Your task to perform on an android device: turn off location Image 0: 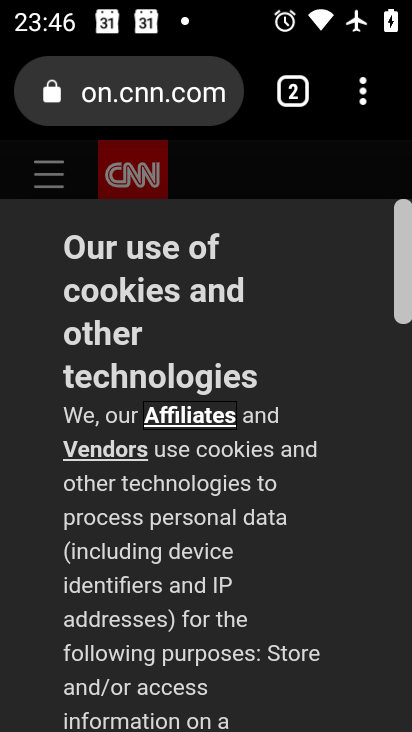
Step 0: click (376, 91)
Your task to perform on an android device: turn off location Image 1: 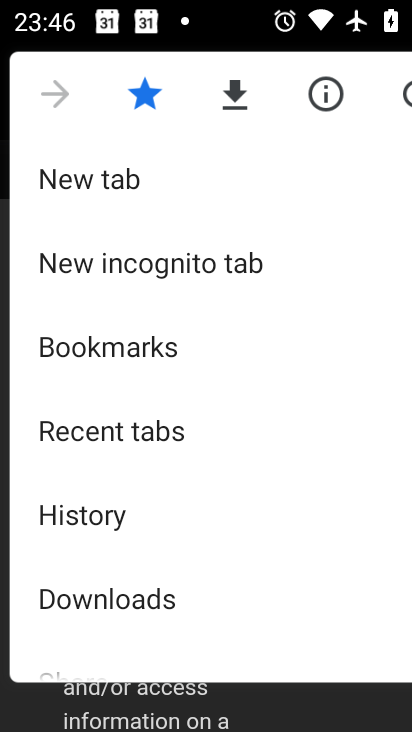
Step 1: drag from (204, 555) to (222, 318)
Your task to perform on an android device: turn off location Image 2: 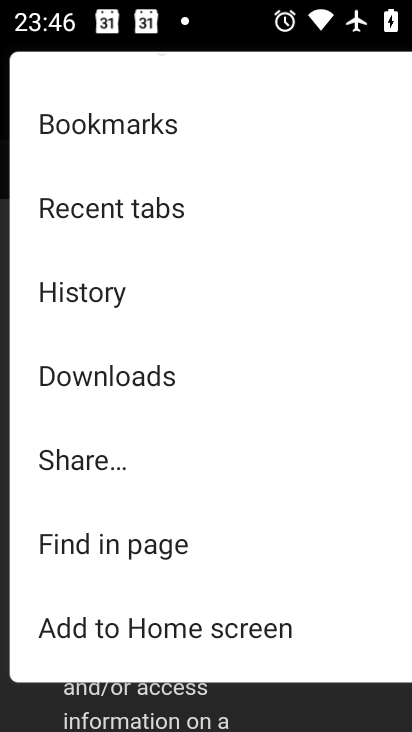
Step 2: drag from (171, 566) to (144, 318)
Your task to perform on an android device: turn off location Image 3: 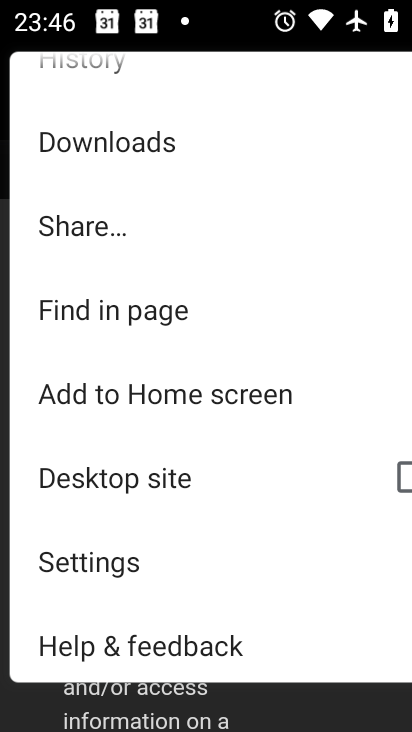
Step 3: drag from (128, 567) to (158, 341)
Your task to perform on an android device: turn off location Image 4: 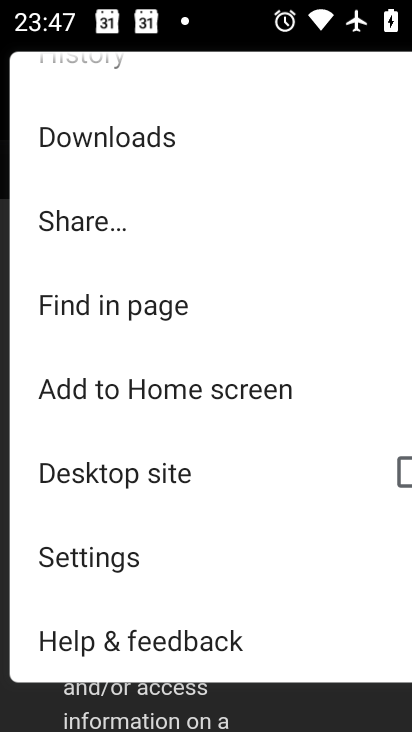
Step 4: click (142, 552)
Your task to perform on an android device: turn off location Image 5: 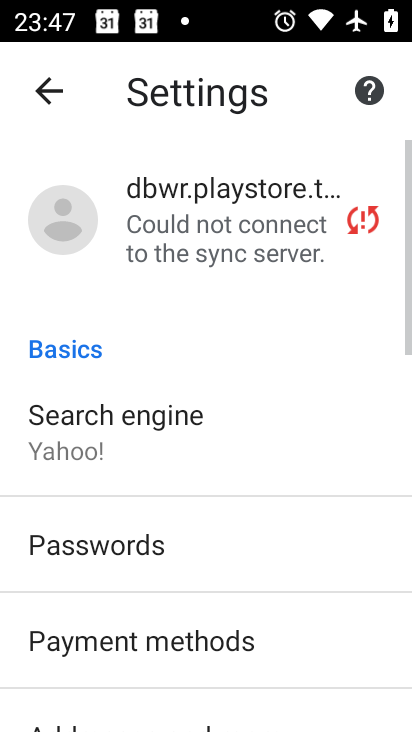
Step 5: drag from (147, 561) to (176, 286)
Your task to perform on an android device: turn off location Image 6: 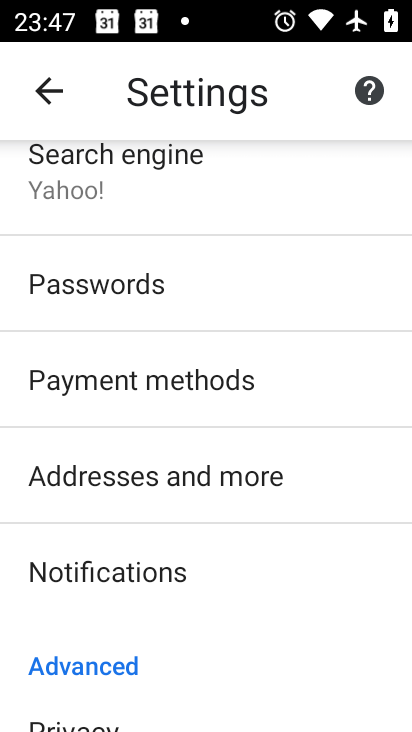
Step 6: drag from (173, 585) to (178, 316)
Your task to perform on an android device: turn off location Image 7: 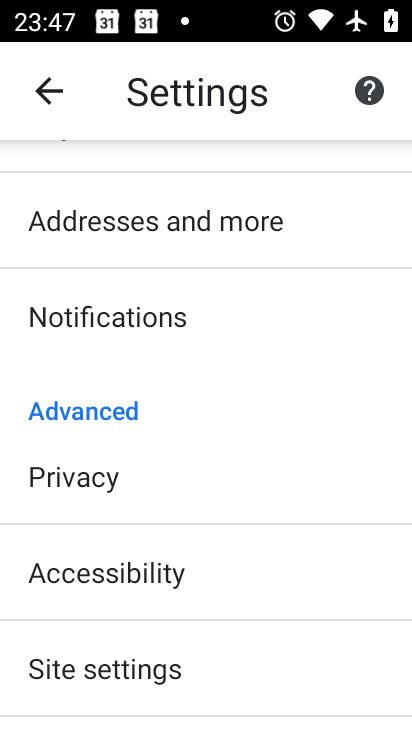
Step 7: drag from (177, 547) to (181, 306)
Your task to perform on an android device: turn off location Image 8: 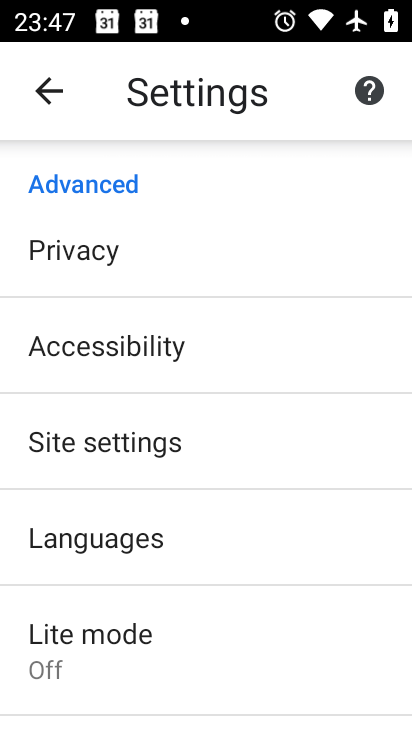
Step 8: drag from (140, 600) to (154, 416)
Your task to perform on an android device: turn off location Image 9: 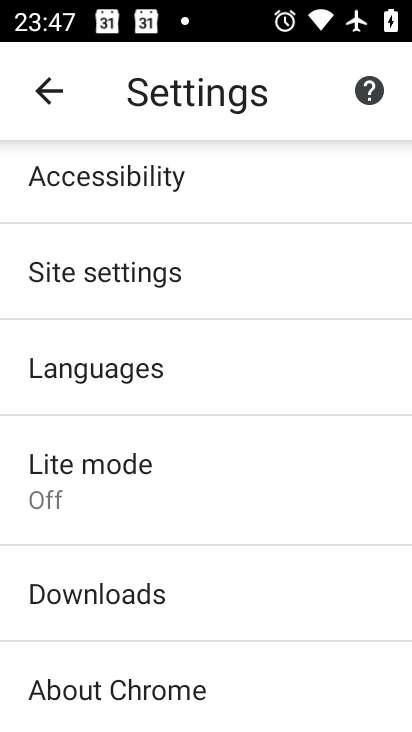
Step 9: drag from (148, 609) to (159, 386)
Your task to perform on an android device: turn off location Image 10: 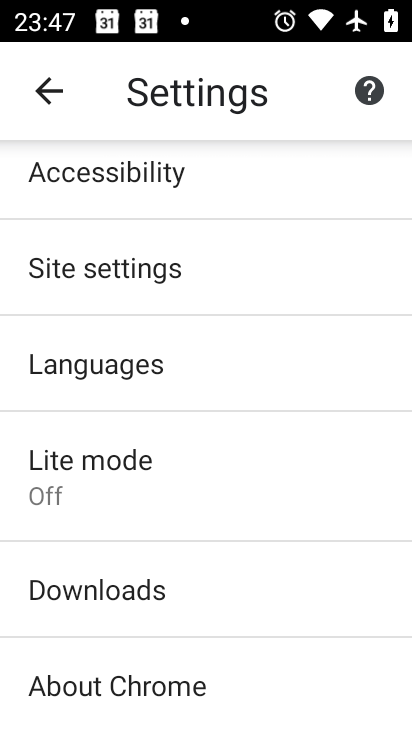
Step 10: drag from (206, 542) to (227, 183)
Your task to perform on an android device: turn off location Image 11: 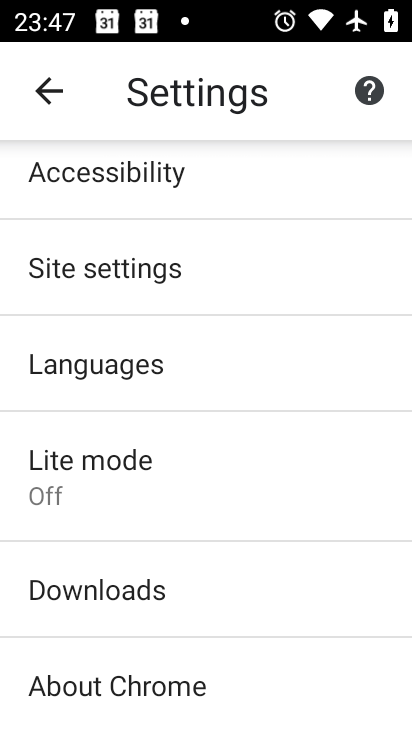
Step 11: click (172, 258)
Your task to perform on an android device: turn off location Image 12: 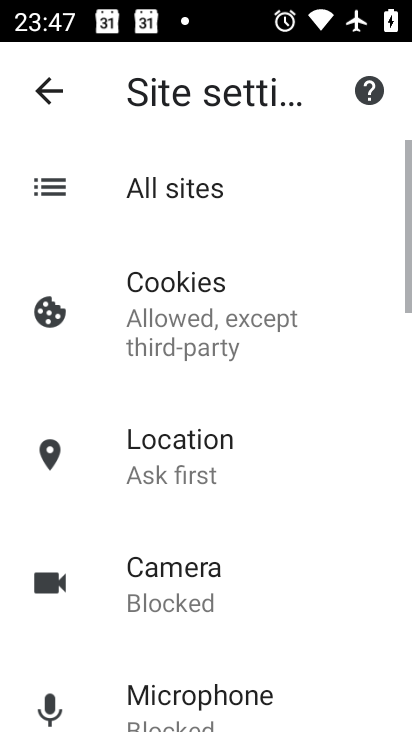
Step 12: click (190, 468)
Your task to perform on an android device: turn off location Image 13: 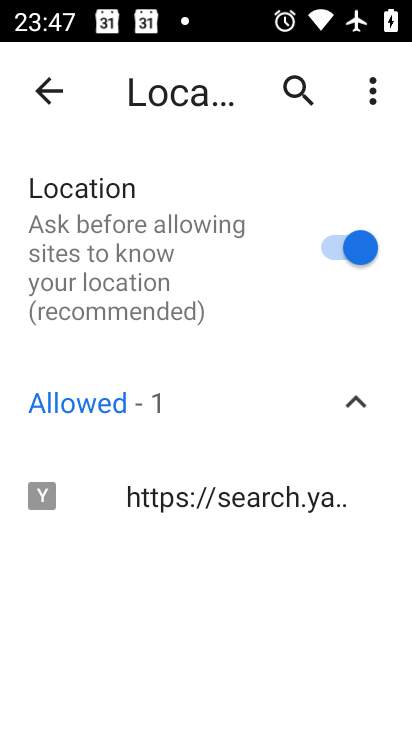
Step 13: click (332, 262)
Your task to perform on an android device: turn off location Image 14: 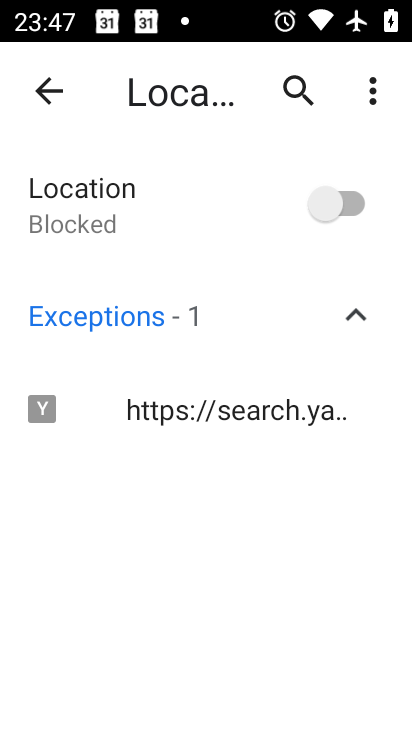
Step 14: task complete